Your task to perform on an android device: Do I have any events tomorrow? Image 0: 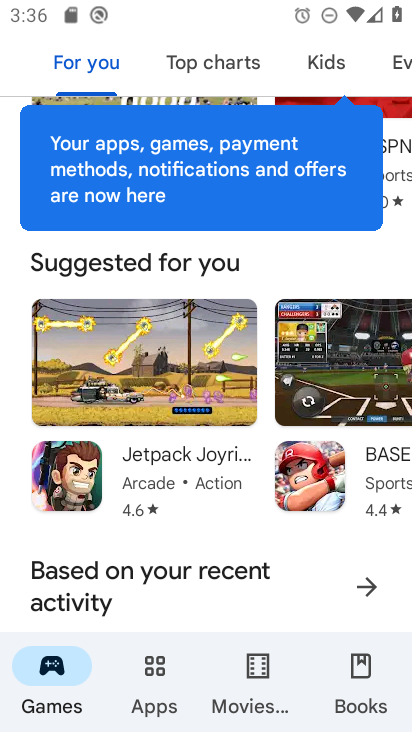
Step 0: press home button
Your task to perform on an android device: Do I have any events tomorrow? Image 1: 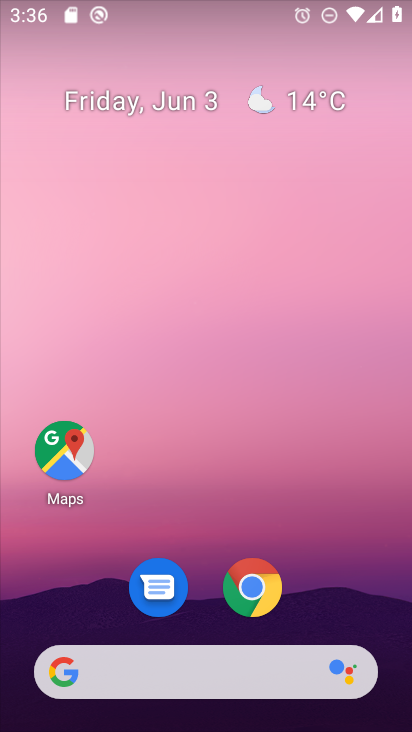
Step 1: drag from (234, 719) to (241, 292)
Your task to perform on an android device: Do I have any events tomorrow? Image 2: 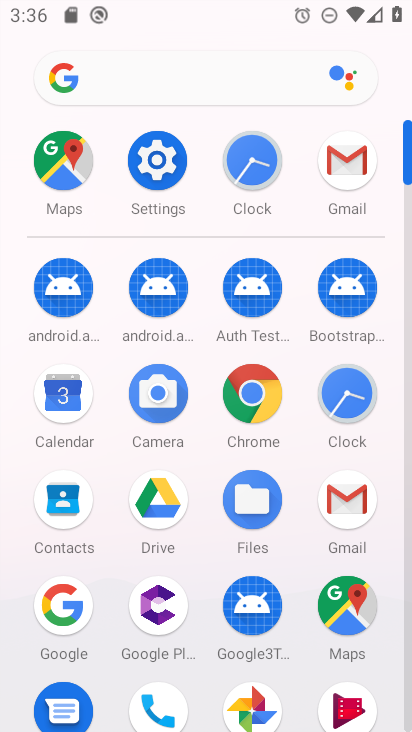
Step 2: click (54, 401)
Your task to perform on an android device: Do I have any events tomorrow? Image 3: 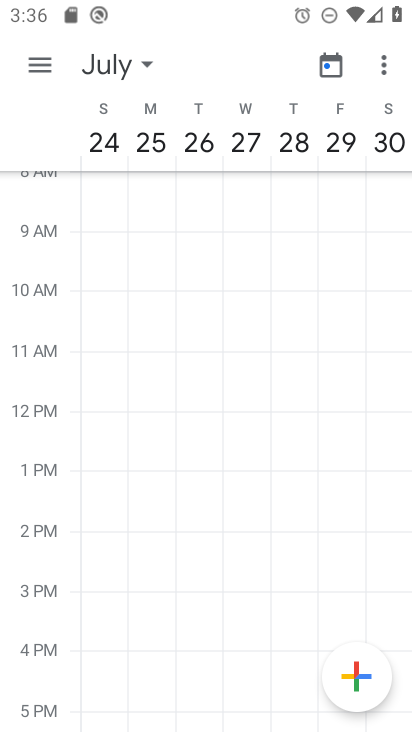
Step 3: click (149, 61)
Your task to perform on an android device: Do I have any events tomorrow? Image 4: 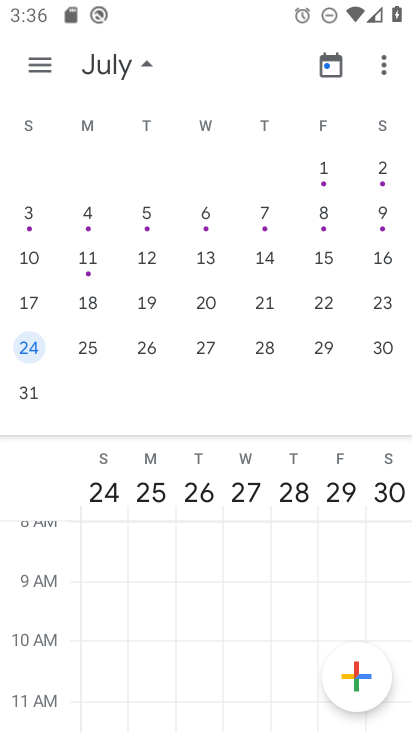
Step 4: drag from (26, 248) to (411, 240)
Your task to perform on an android device: Do I have any events tomorrow? Image 5: 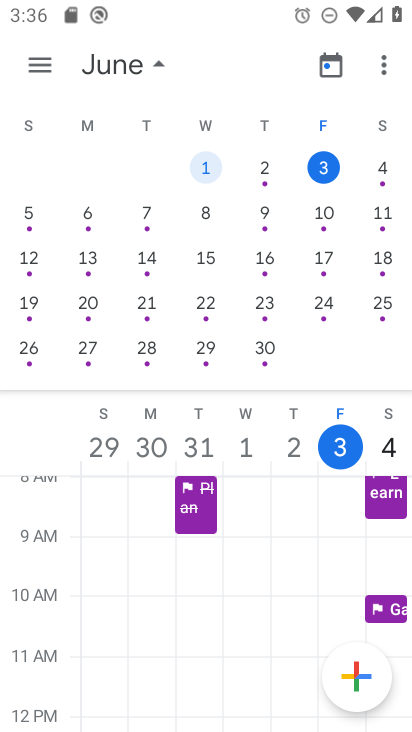
Step 5: click (383, 167)
Your task to perform on an android device: Do I have any events tomorrow? Image 6: 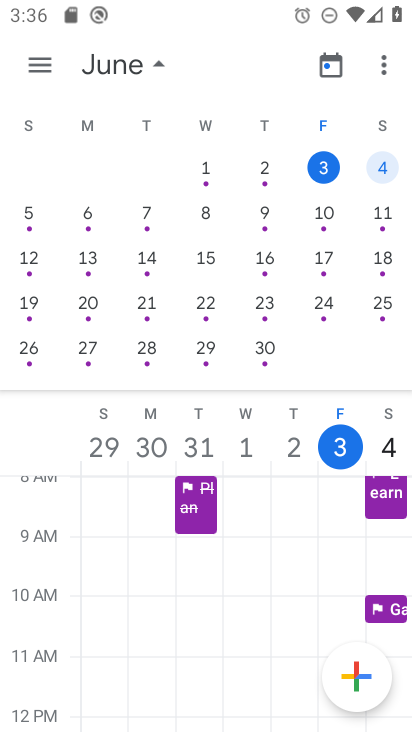
Step 6: click (383, 167)
Your task to perform on an android device: Do I have any events tomorrow? Image 7: 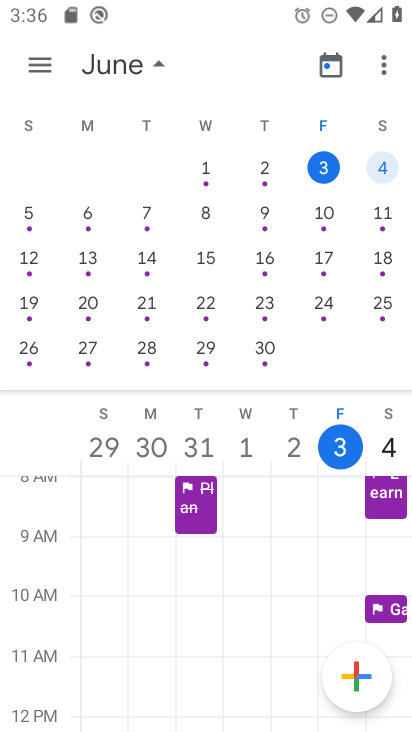
Step 7: click (383, 441)
Your task to perform on an android device: Do I have any events tomorrow? Image 8: 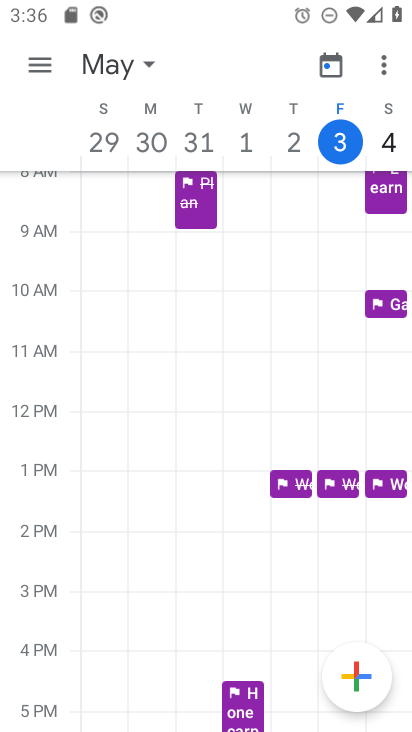
Step 8: click (386, 141)
Your task to perform on an android device: Do I have any events tomorrow? Image 9: 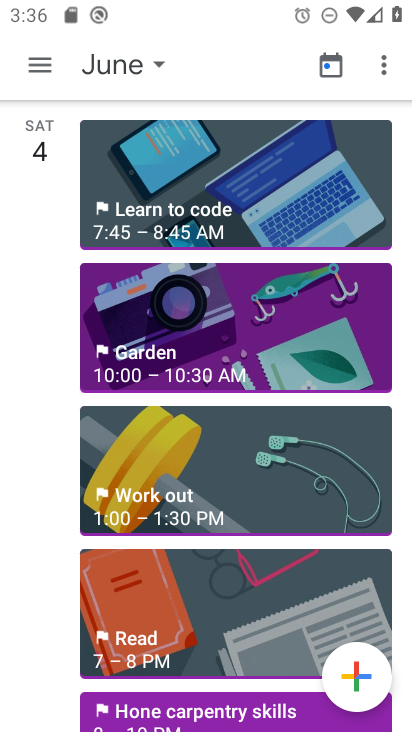
Step 9: task complete